Your task to perform on an android device: visit the assistant section in the google photos Image 0: 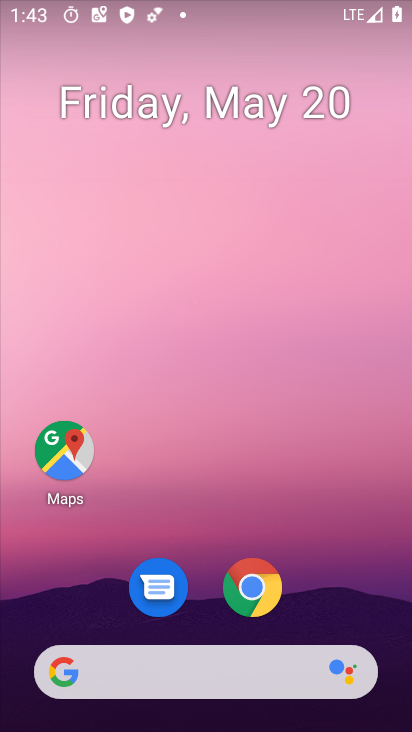
Step 0: drag from (320, 578) to (266, 207)
Your task to perform on an android device: visit the assistant section in the google photos Image 1: 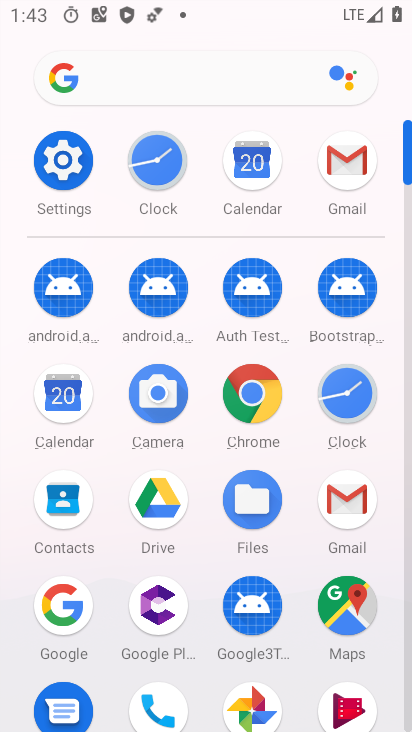
Step 1: click (262, 705)
Your task to perform on an android device: visit the assistant section in the google photos Image 2: 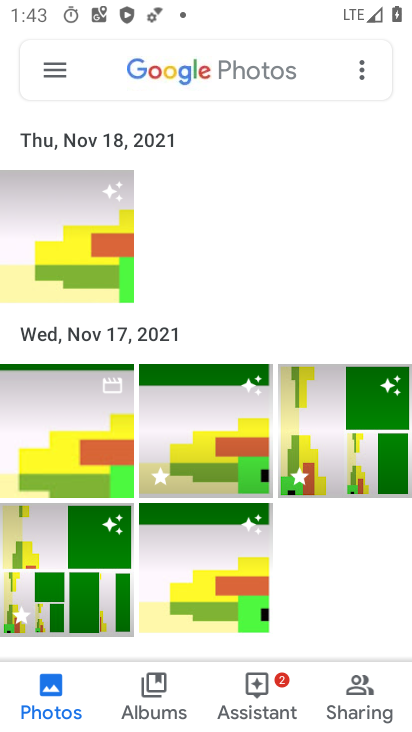
Step 2: click (357, 75)
Your task to perform on an android device: visit the assistant section in the google photos Image 3: 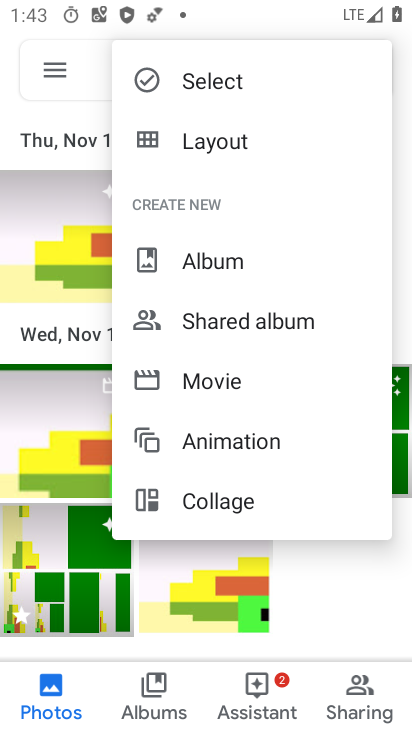
Step 3: drag from (234, 460) to (296, 154)
Your task to perform on an android device: visit the assistant section in the google photos Image 4: 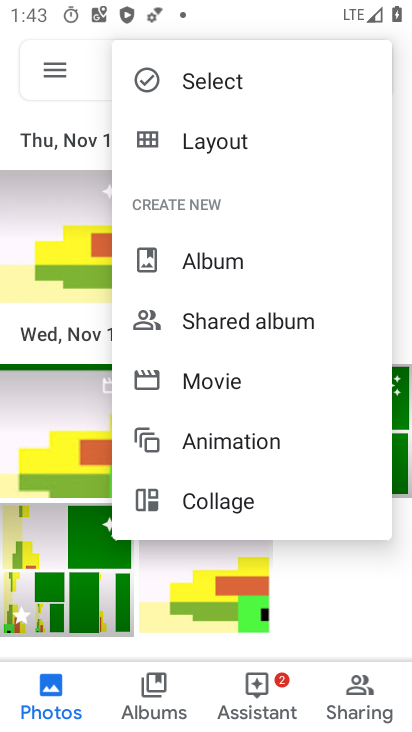
Step 4: click (60, 67)
Your task to perform on an android device: visit the assistant section in the google photos Image 5: 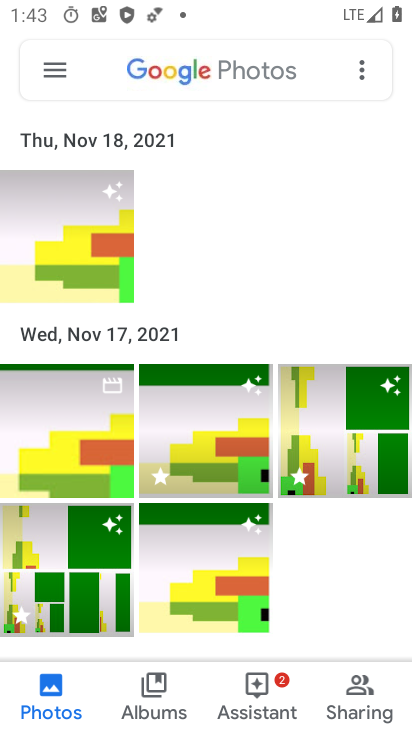
Step 5: click (260, 687)
Your task to perform on an android device: visit the assistant section in the google photos Image 6: 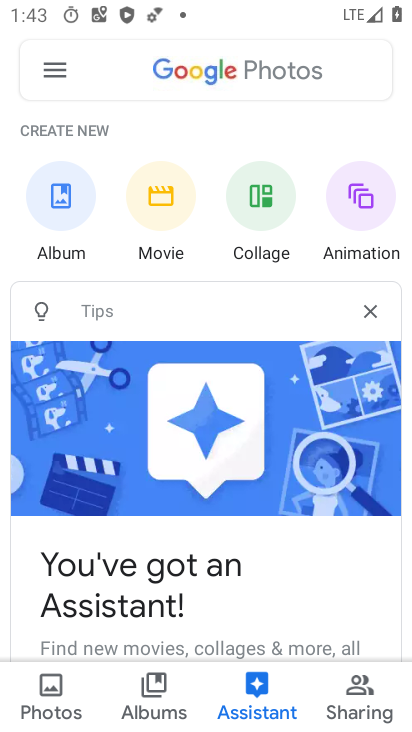
Step 6: task complete